Your task to perform on an android device: turn off improve location accuracy Image 0: 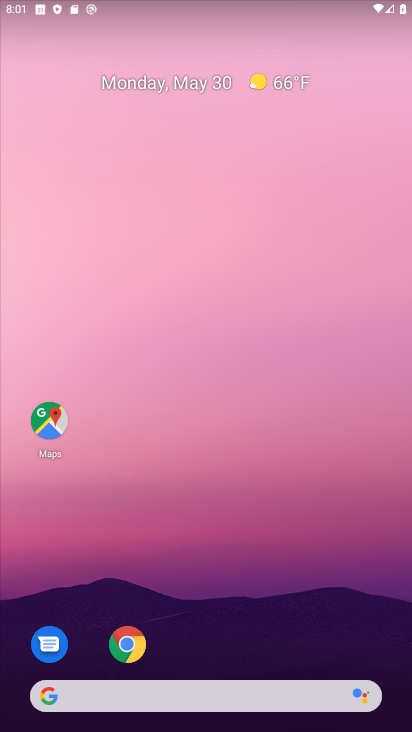
Step 0: drag from (223, 643) to (288, 123)
Your task to perform on an android device: turn off improve location accuracy Image 1: 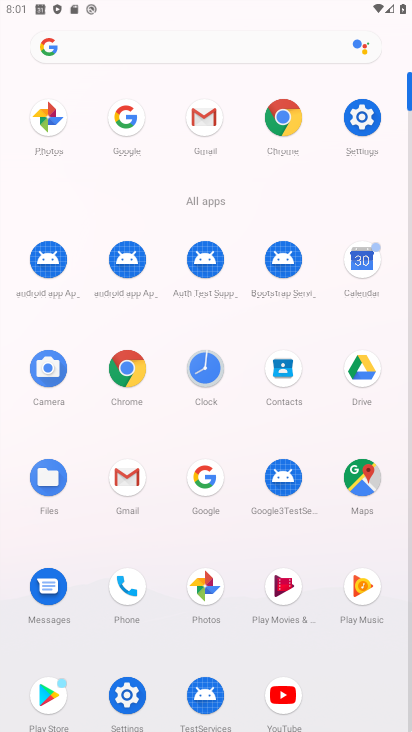
Step 1: click (360, 116)
Your task to perform on an android device: turn off improve location accuracy Image 2: 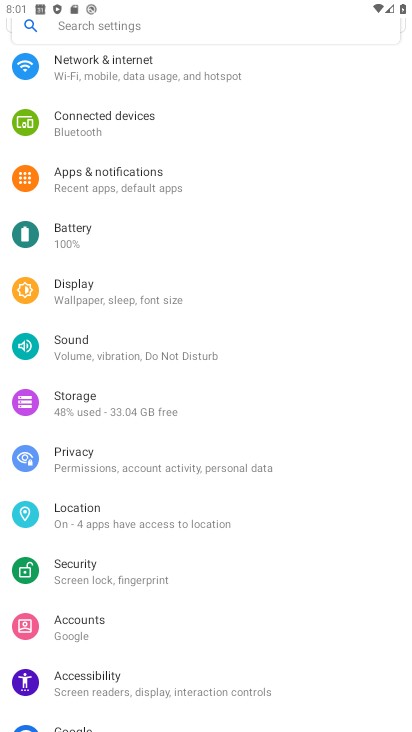
Step 2: click (86, 511)
Your task to perform on an android device: turn off improve location accuracy Image 3: 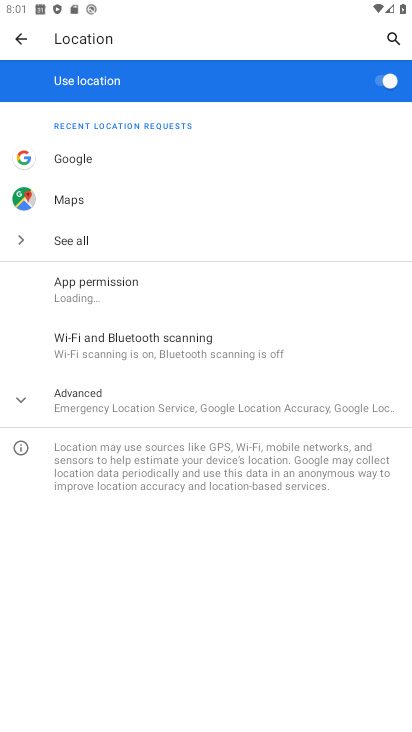
Step 3: click (125, 401)
Your task to perform on an android device: turn off improve location accuracy Image 4: 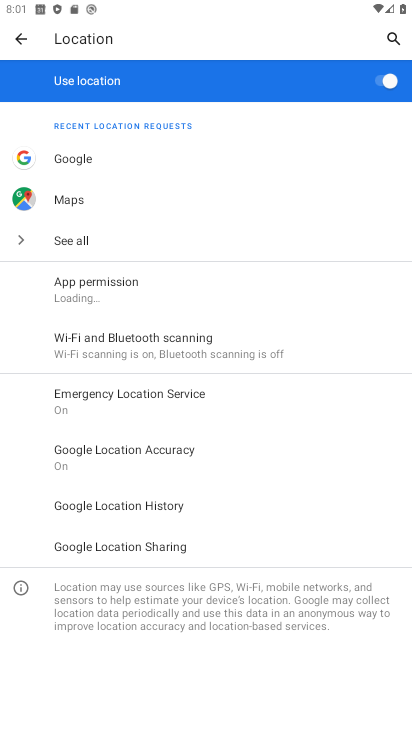
Step 4: click (150, 454)
Your task to perform on an android device: turn off improve location accuracy Image 5: 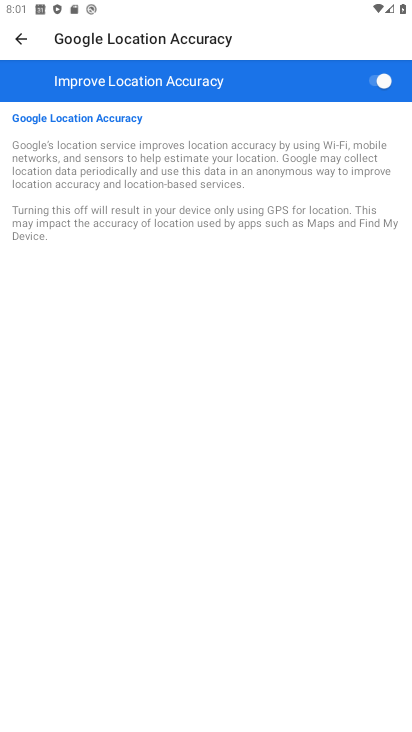
Step 5: click (364, 89)
Your task to perform on an android device: turn off improve location accuracy Image 6: 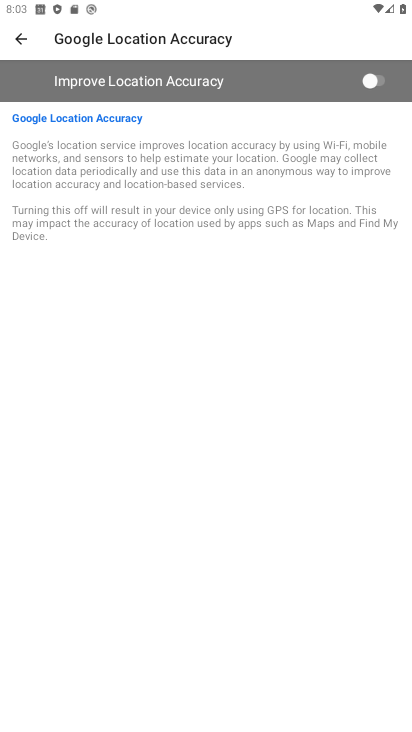
Step 6: task complete